Your task to perform on an android device: Go to internet settings Image 0: 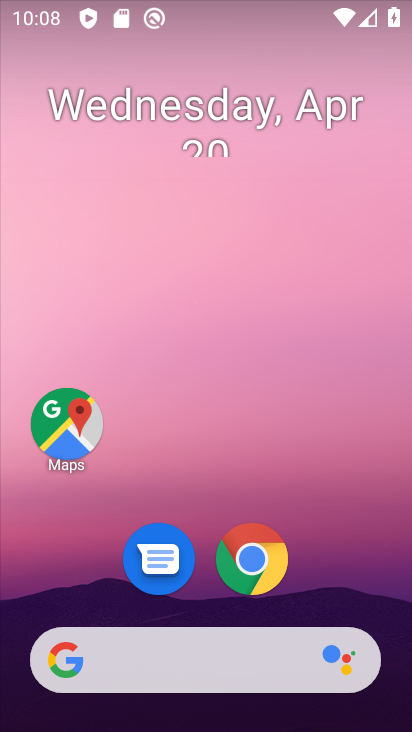
Step 0: drag from (229, 722) to (228, 127)
Your task to perform on an android device: Go to internet settings Image 1: 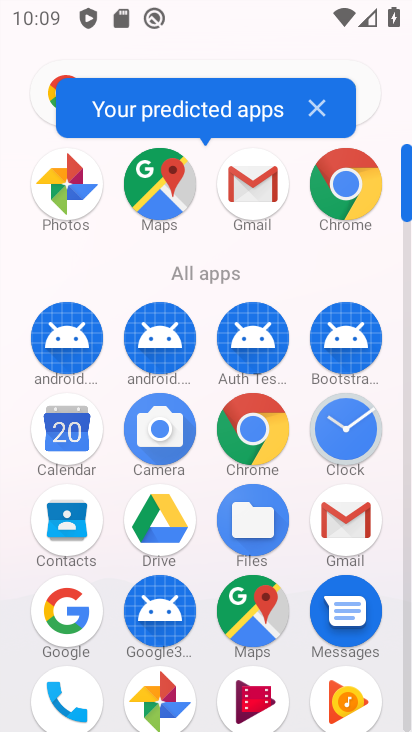
Step 1: drag from (199, 648) to (181, 279)
Your task to perform on an android device: Go to internet settings Image 2: 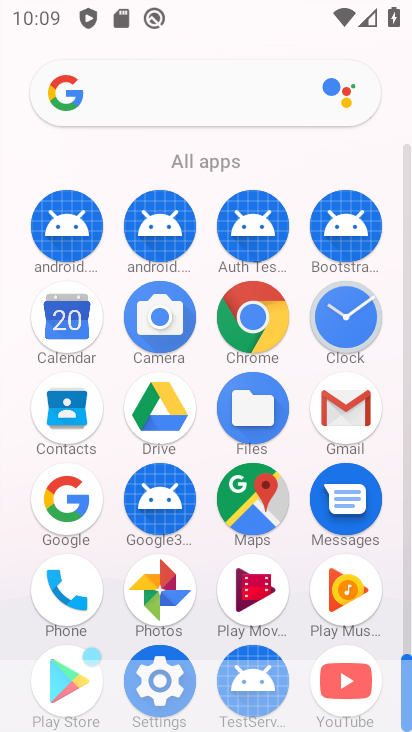
Step 2: click (150, 680)
Your task to perform on an android device: Go to internet settings Image 3: 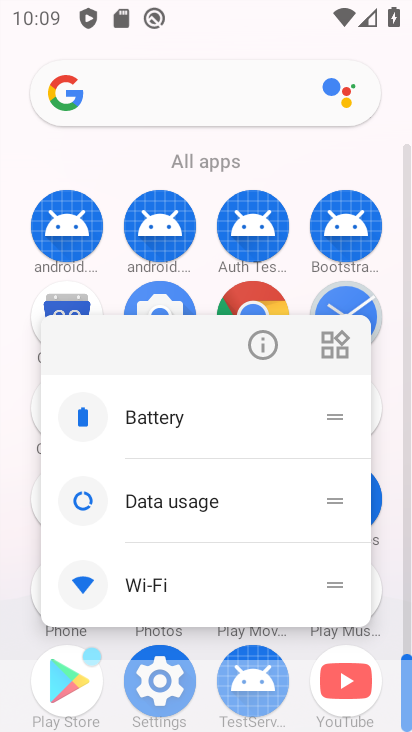
Step 3: click (148, 688)
Your task to perform on an android device: Go to internet settings Image 4: 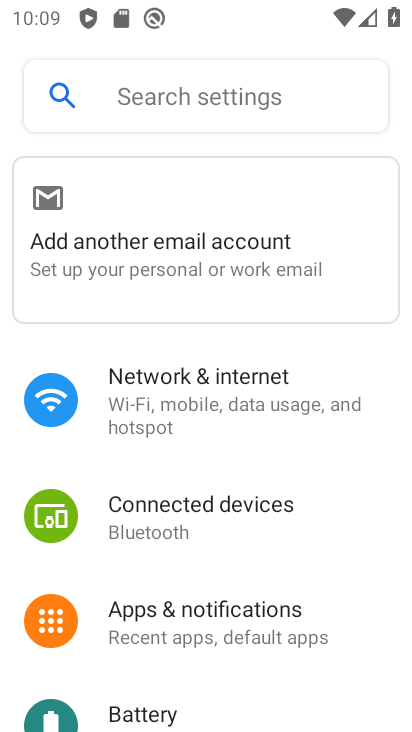
Step 4: click (153, 401)
Your task to perform on an android device: Go to internet settings Image 5: 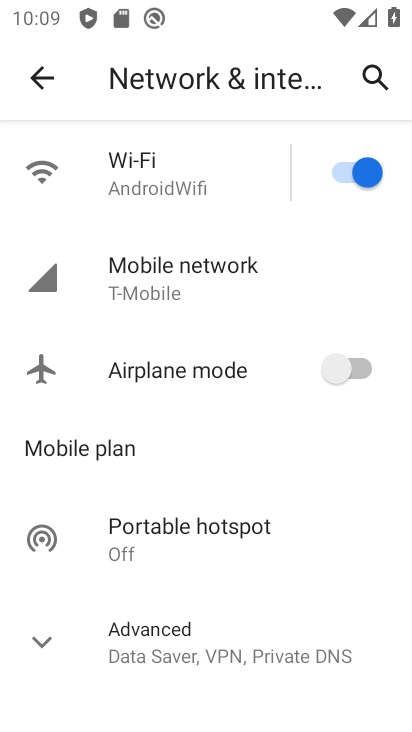
Step 5: task complete